Your task to perform on an android device: turn off javascript in the chrome app Image 0: 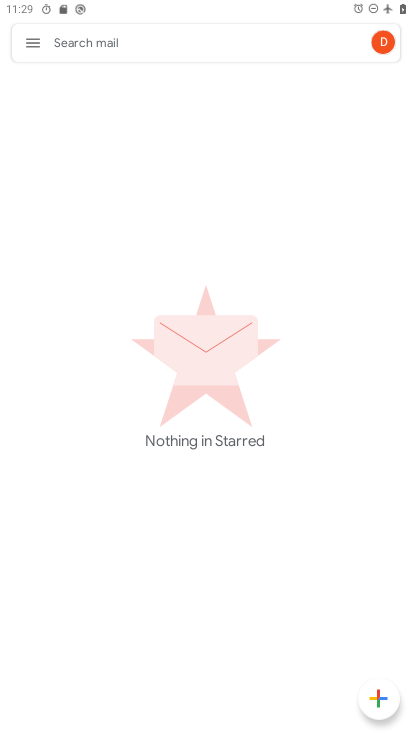
Step 0: press home button
Your task to perform on an android device: turn off javascript in the chrome app Image 1: 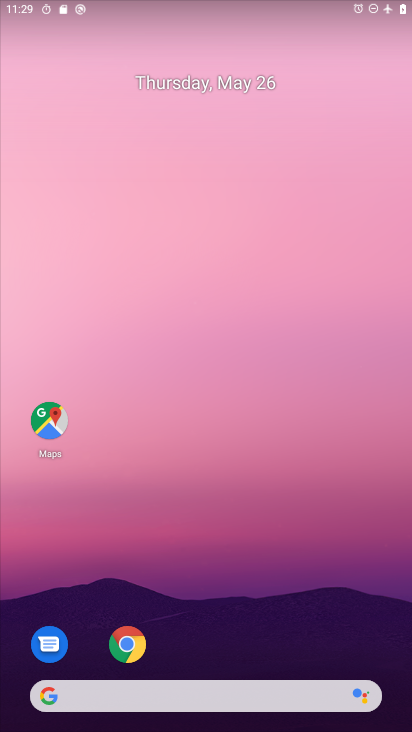
Step 1: drag from (359, 622) to (365, 281)
Your task to perform on an android device: turn off javascript in the chrome app Image 2: 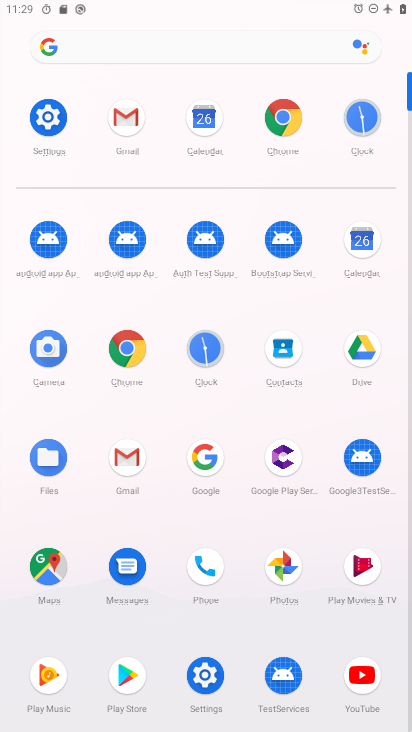
Step 2: click (278, 130)
Your task to perform on an android device: turn off javascript in the chrome app Image 3: 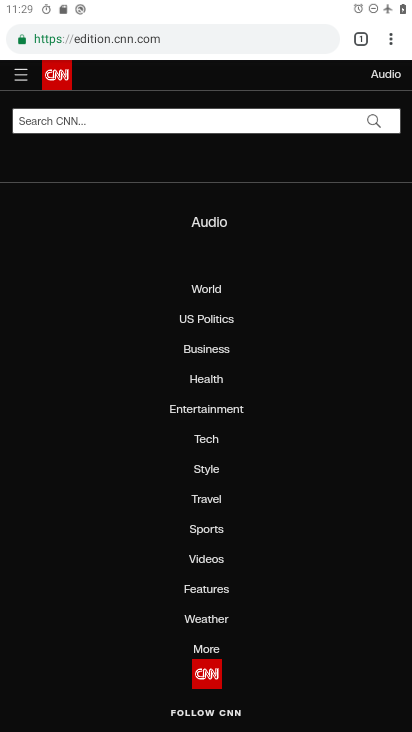
Step 3: click (388, 38)
Your task to perform on an android device: turn off javascript in the chrome app Image 4: 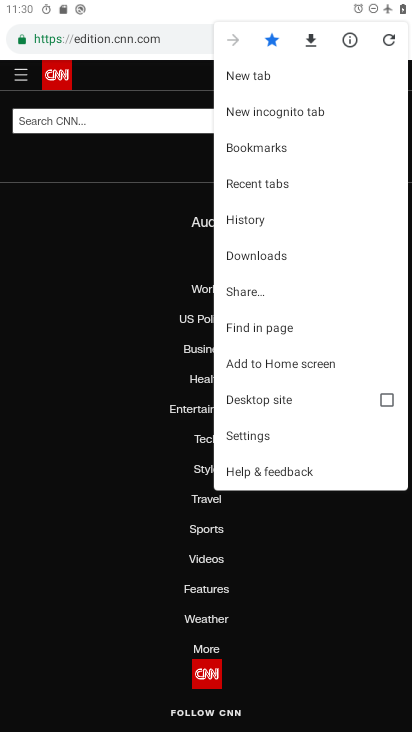
Step 4: click (272, 429)
Your task to perform on an android device: turn off javascript in the chrome app Image 5: 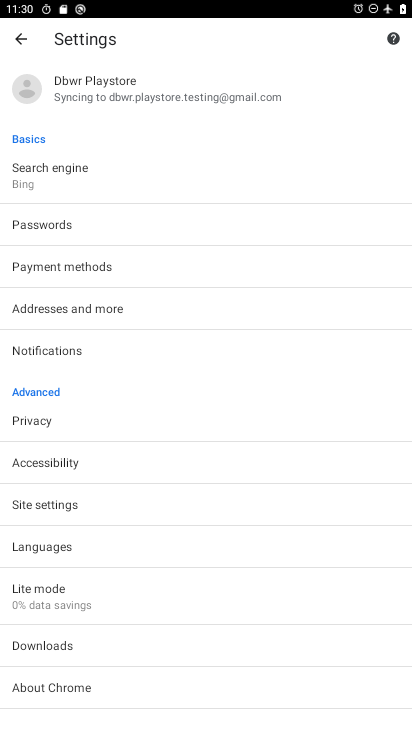
Step 5: click (216, 500)
Your task to perform on an android device: turn off javascript in the chrome app Image 6: 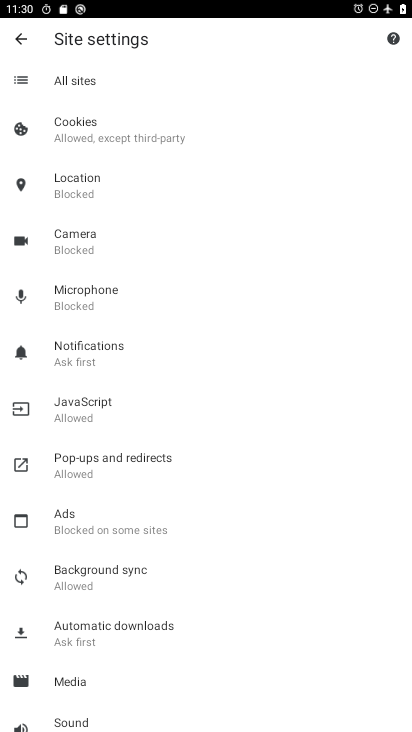
Step 6: click (196, 410)
Your task to perform on an android device: turn off javascript in the chrome app Image 7: 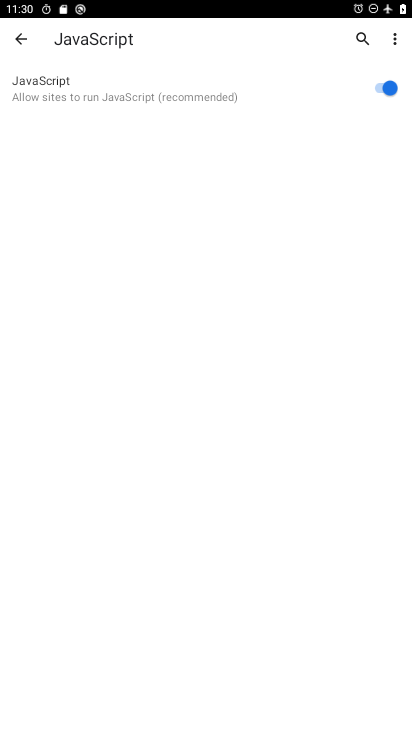
Step 7: task complete